Your task to perform on an android device: Go to eBay Image 0: 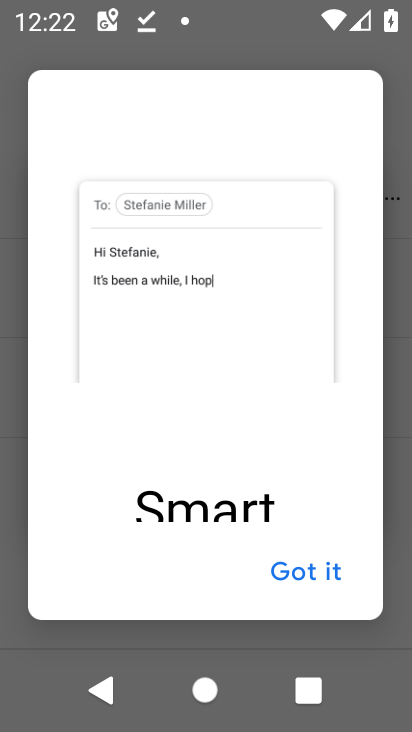
Step 0: press home button
Your task to perform on an android device: Go to eBay Image 1: 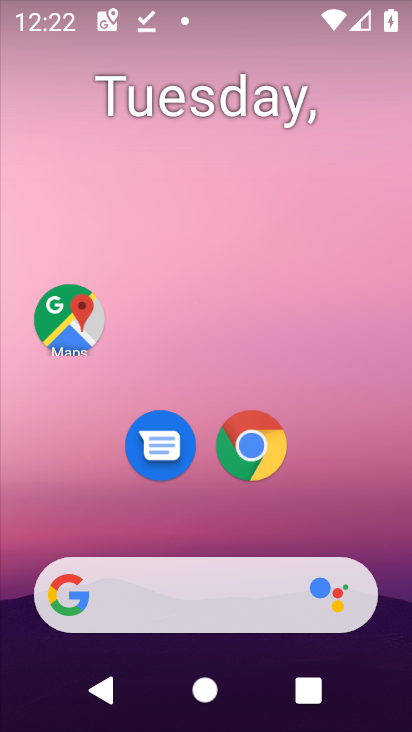
Step 1: click (239, 433)
Your task to perform on an android device: Go to eBay Image 2: 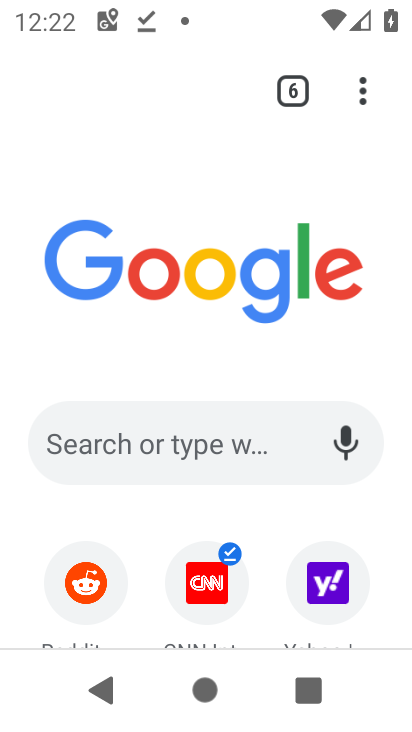
Step 2: click (188, 440)
Your task to perform on an android device: Go to eBay Image 3: 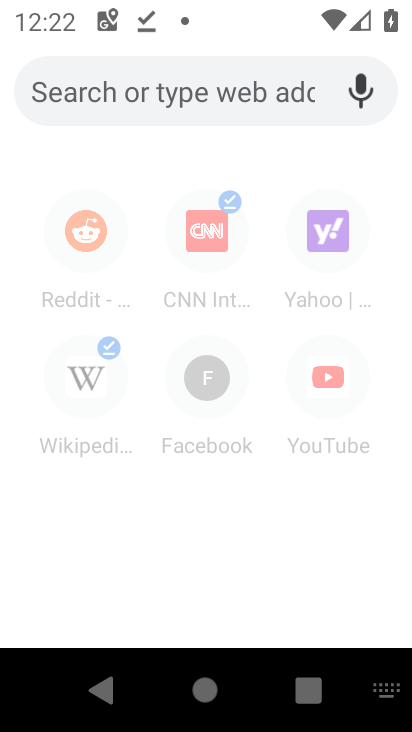
Step 3: type "ebay"
Your task to perform on an android device: Go to eBay Image 4: 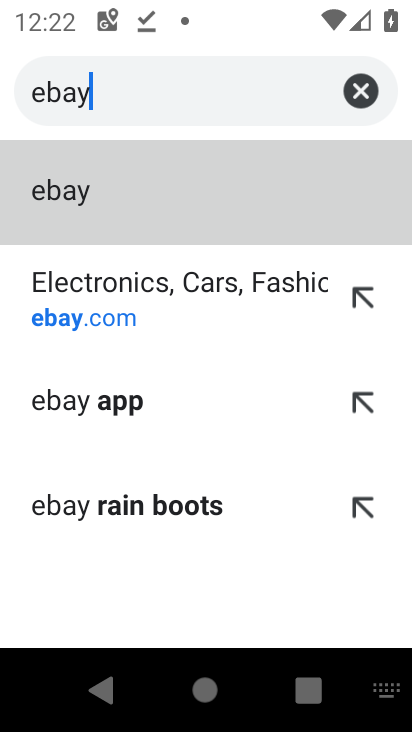
Step 4: click (67, 190)
Your task to perform on an android device: Go to eBay Image 5: 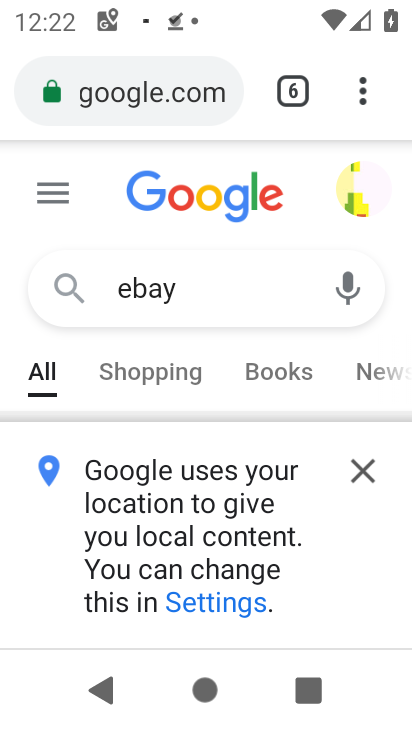
Step 5: task complete